Your task to perform on an android device: Search for pizza restaurants on Maps Image 0: 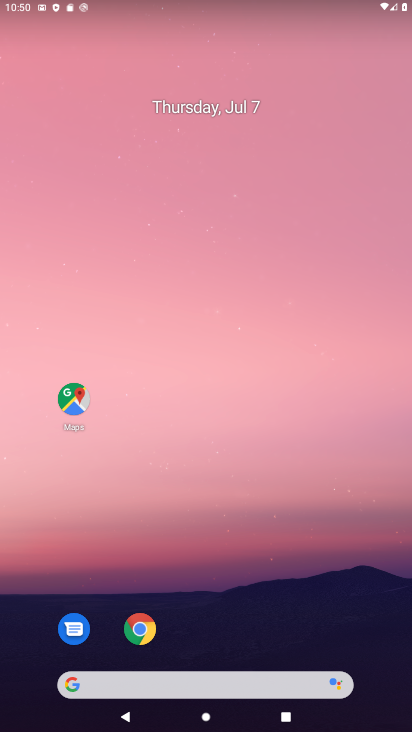
Step 0: press home button
Your task to perform on an android device: Search for pizza restaurants on Maps Image 1: 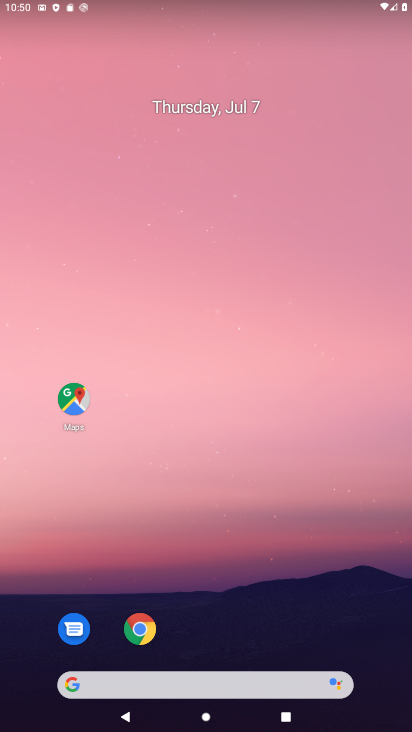
Step 1: drag from (317, 636) to (336, 157)
Your task to perform on an android device: Search for pizza restaurants on Maps Image 2: 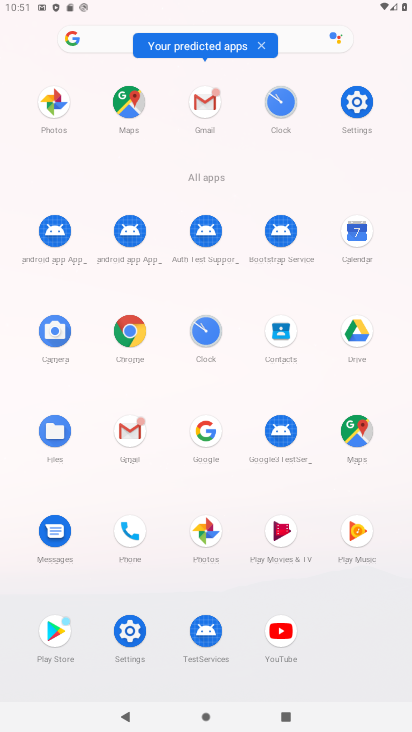
Step 2: click (138, 347)
Your task to perform on an android device: Search for pizza restaurants on Maps Image 3: 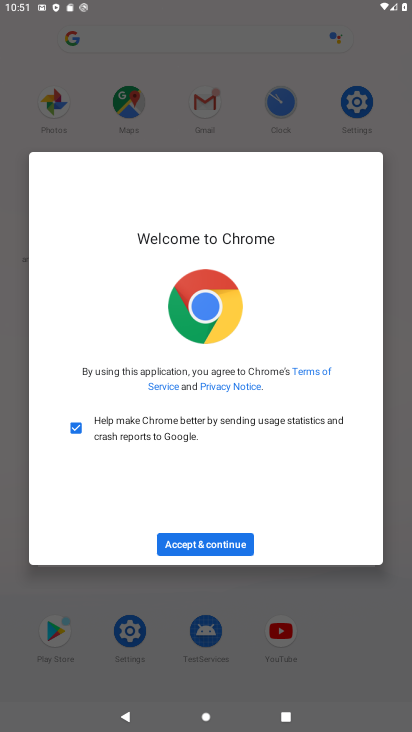
Step 3: click (197, 535)
Your task to perform on an android device: Search for pizza restaurants on Maps Image 4: 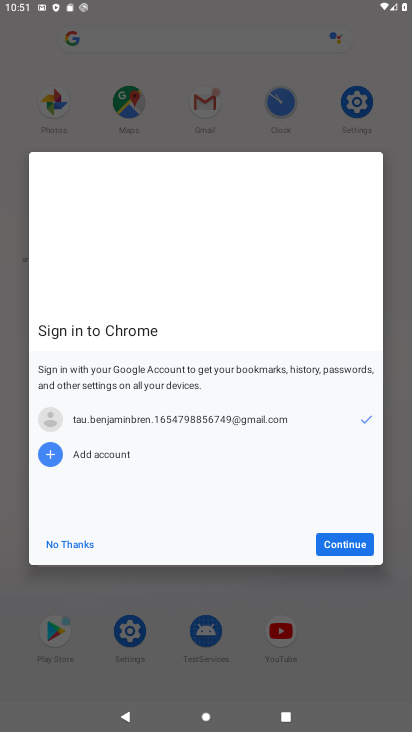
Step 4: click (329, 548)
Your task to perform on an android device: Search for pizza restaurants on Maps Image 5: 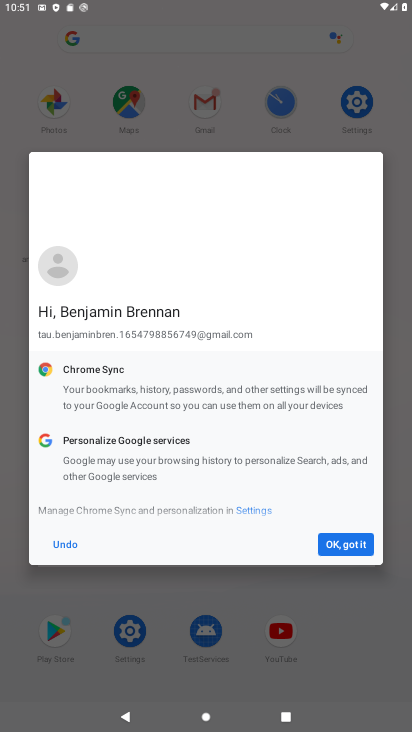
Step 5: click (329, 548)
Your task to perform on an android device: Search for pizza restaurants on Maps Image 6: 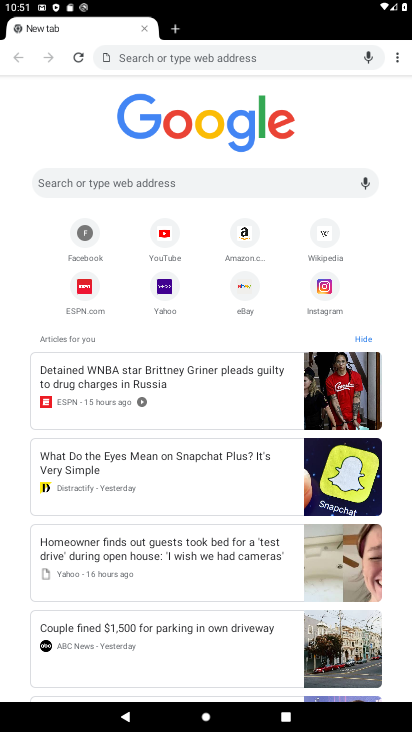
Step 6: press home button
Your task to perform on an android device: Search for pizza restaurants on Maps Image 7: 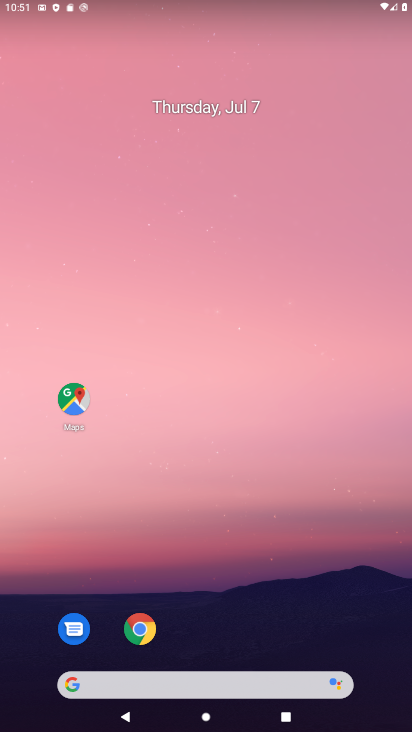
Step 7: drag from (349, 713) to (360, 4)
Your task to perform on an android device: Search for pizza restaurants on Maps Image 8: 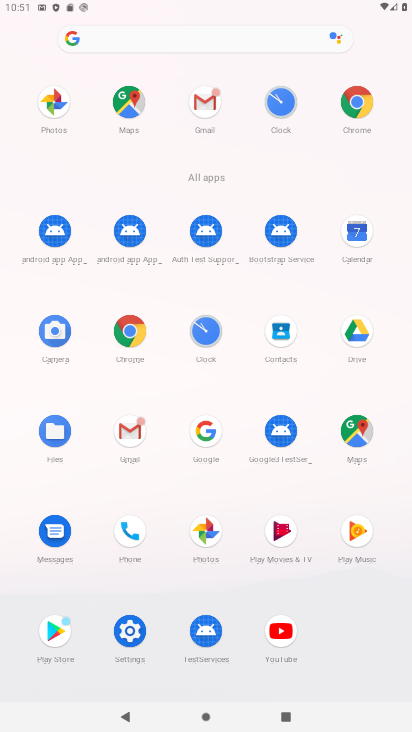
Step 8: click (345, 417)
Your task to perform on an android device: Search for pizza restaurants on Maps Image 9: 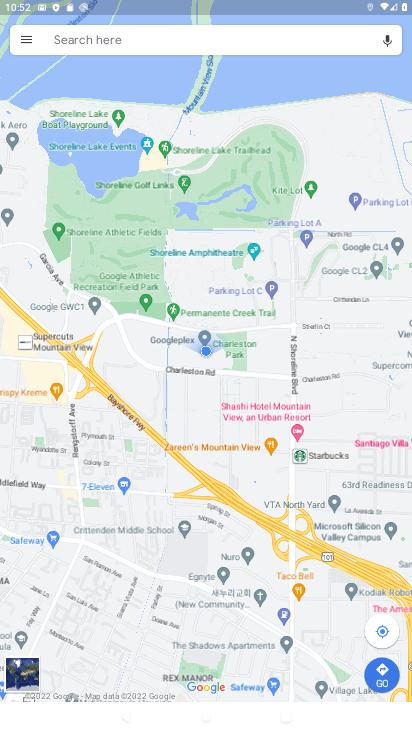
Step 9: click (146, 38)
Your task to perform on an android device: Search for pizza restaurants on Maps Image 10: 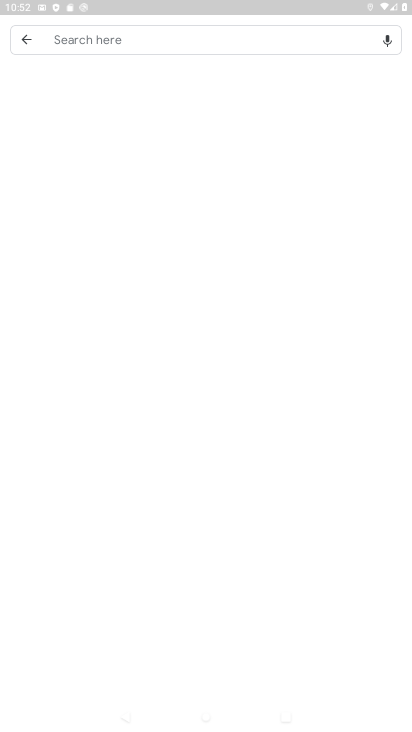
Step 10: click (146, 38)
Your task to perform on an android device: Search for pizza restaurants on Maps Image 11: 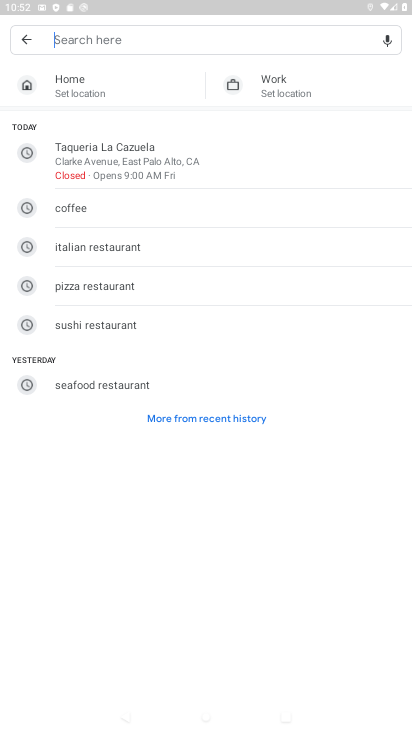
Step 11: click (146, 38)
Your task to perform on an android device: Search for pizza restaurants on Maps Image 12: 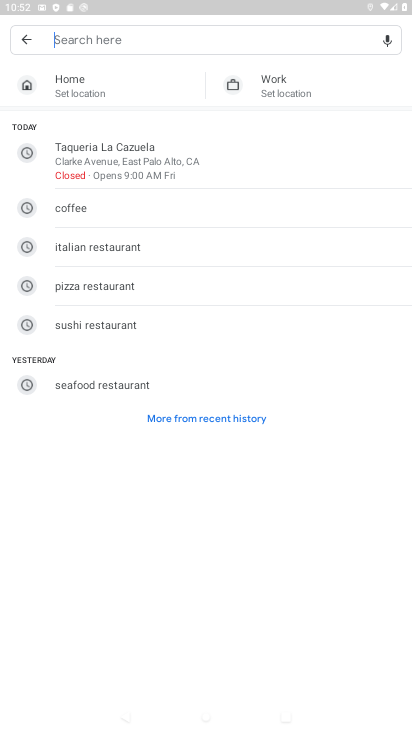
Step 12: click (146, 38)
Your task to perform on an android device: Search for pizza restaurants on Maps Image 13: 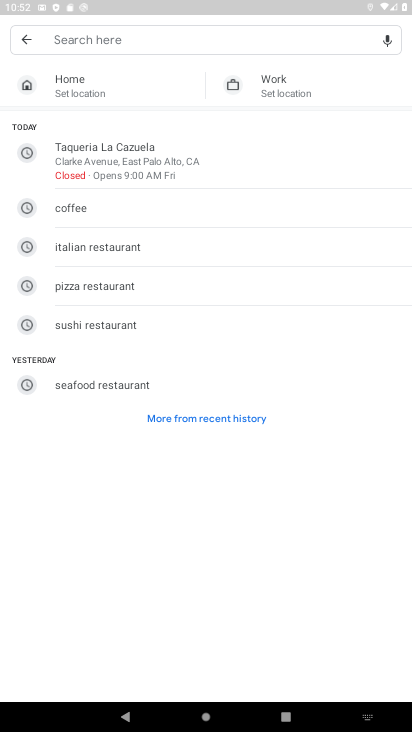
Step 13: click (146, 38)
Your task to perform on an android device: Search for pizza restaurants on Maps Image 14: 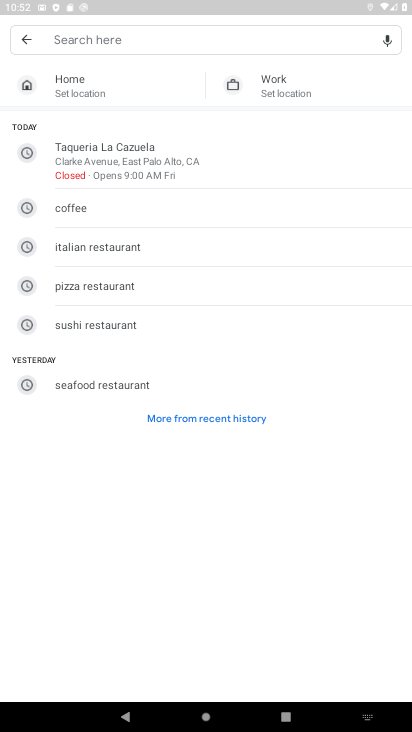
Step 14: click (146, 38)
Your task to perform on an android device: Search for pizza restaurants on Maps Image 15: 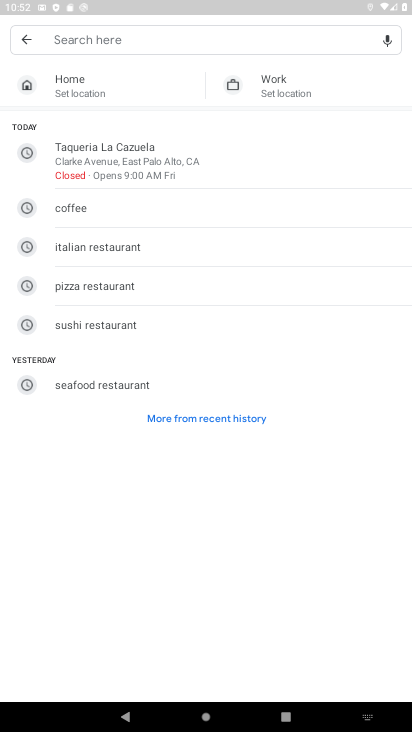
Step 15: type "pizza restaurants "
Your task to perform on an android device: Search for pizza restaurants on Maps Image 16: 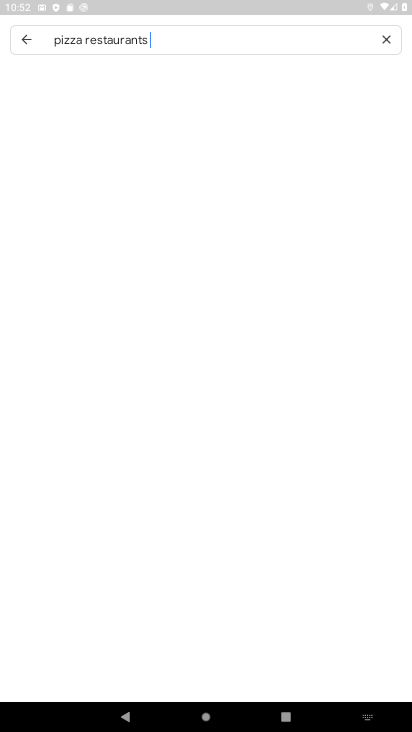
Step 16: type ""
Your task to perform on an android device: Search for pizza restaurants on Maps Image 17: 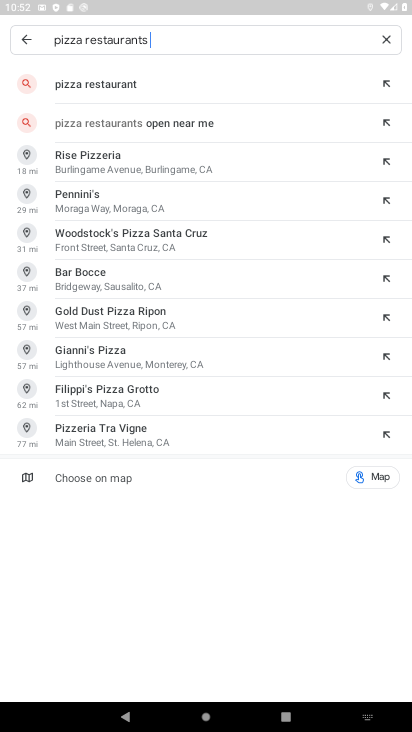
Step 17: click (128, 86)
Your task to perform on an android device: Search for pizza restaurants on Maps Image 18: 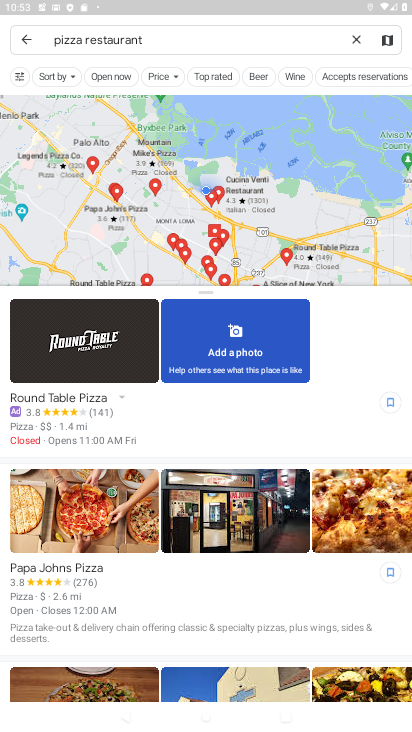
Step 18: task complete